Your task to perform on an android device: change notification settings in the gmail app Image 0: 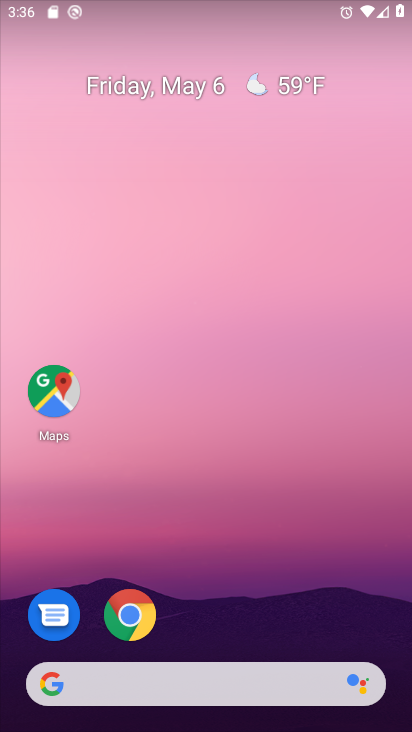
Step 0: drag from (336, 636) to (319, 11)
Your task to perform on an android device: change notification settings in the gmail app Image 1: 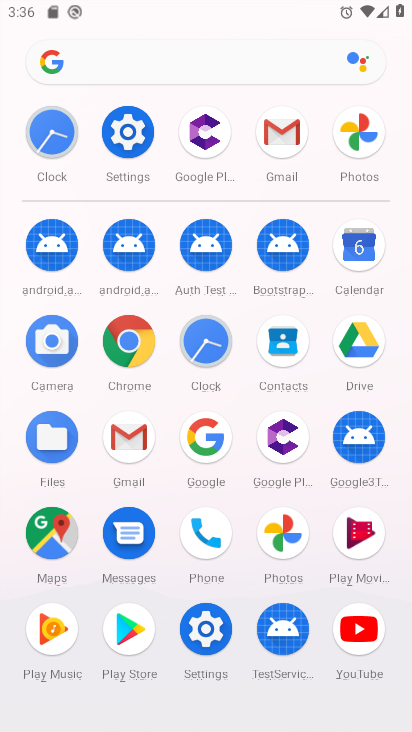
Step 1: click (281, 141)
Your task to perform on an android device: change notification settings in the gmail app Image 2: 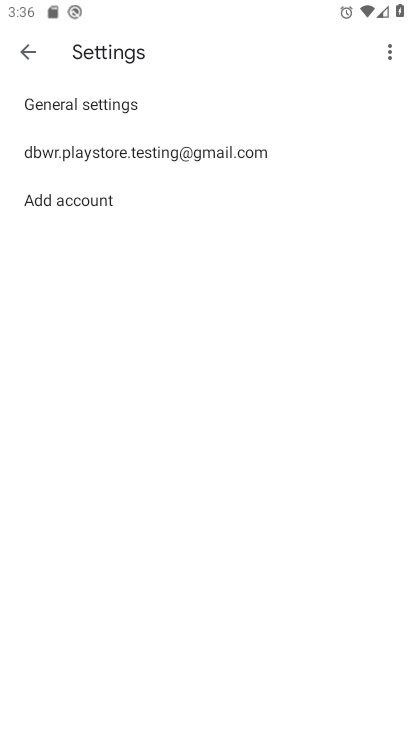
Step 2: click (62, 109)
Your task to perform on an android device: change notification settings in the gmail app Image 3: 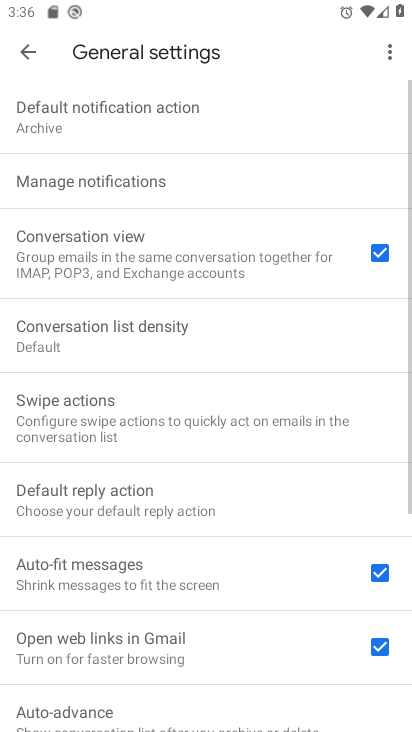
Step 3: click (71, 182)
Your task to perform on an android device: change notification settings in the gmail app Image 4: 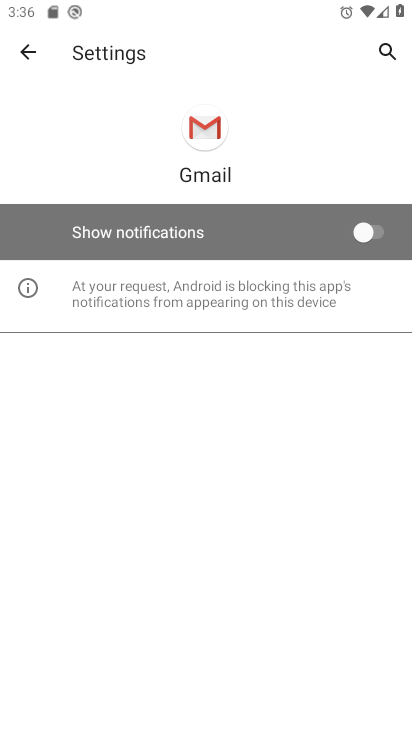
Step 4: click (358, 234)
Your task to perform on an android device: change notification settings in the gmail app Image 5: 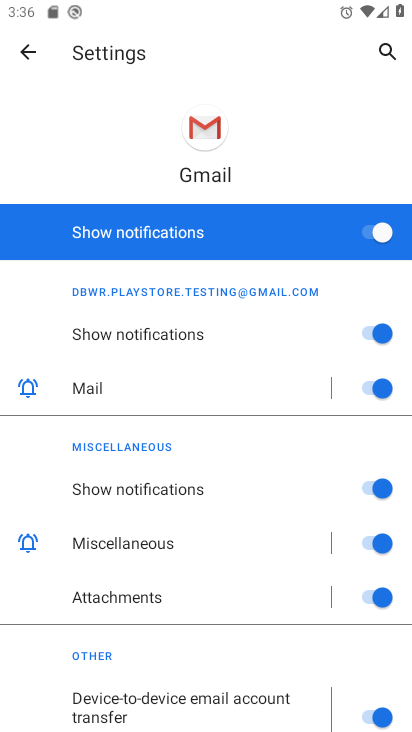
Step 5: task complete